Your task to perform on an android device: turn on sleep mode Image 0: 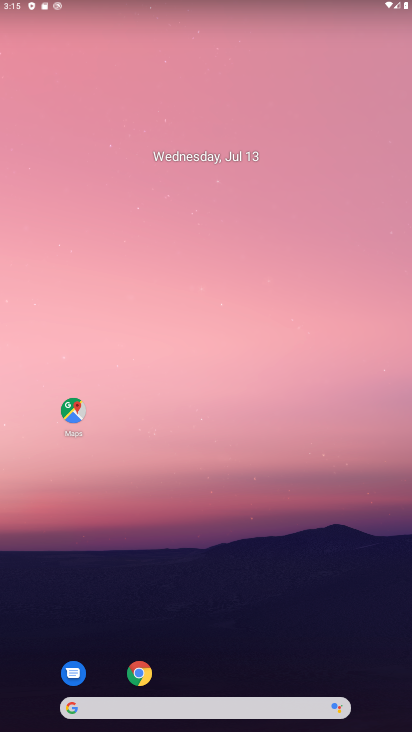
Step 0: drag from (236, 575) to (249, 124)
Your task to perform on an android device: turn on sleep mode Image 1: 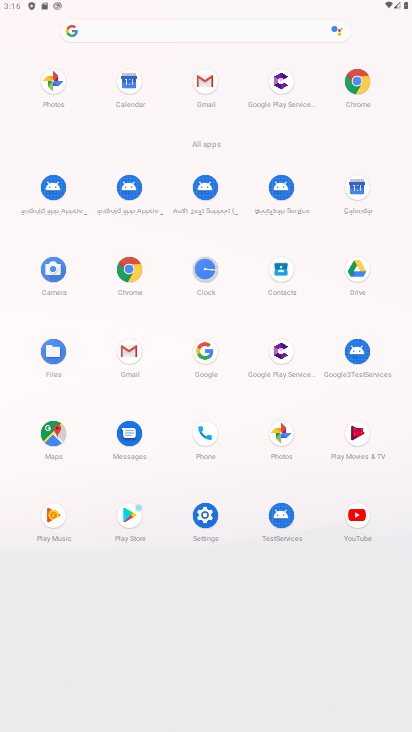
Step 1: click (205, 513)
Your task to perform on an android device: turn on sleep mode Image 2: 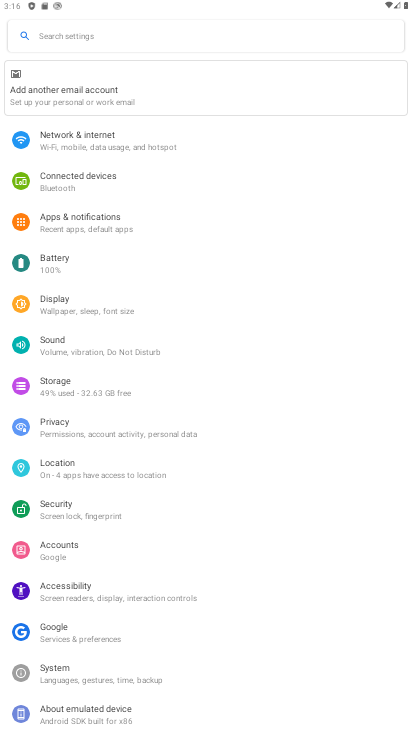
Step 2: click (79, 305)
Your task to perform on an android device: turn on sleep mode Image 3: 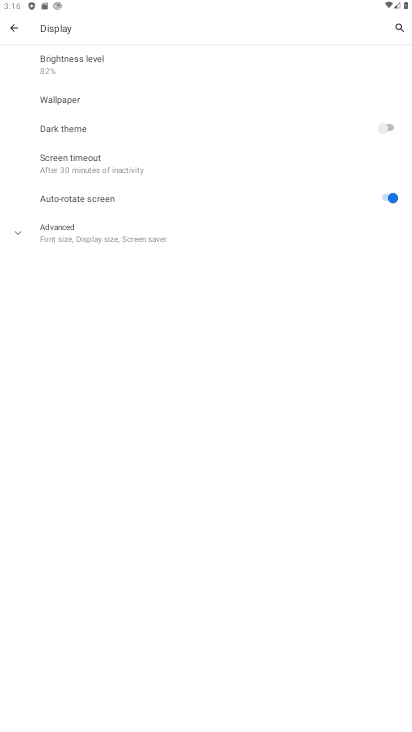
Step 3: click (92, 162)
Your task to perform on an android device: turn on sleep mode Image 4: 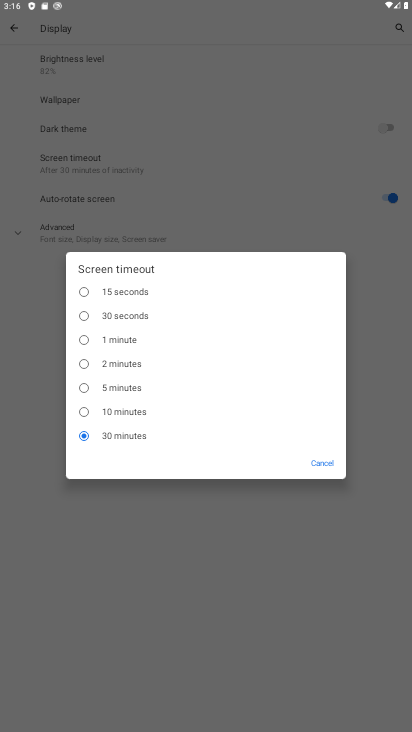
Step 4: task complete